Your task to perform on an android device: Go to settings Image 0: 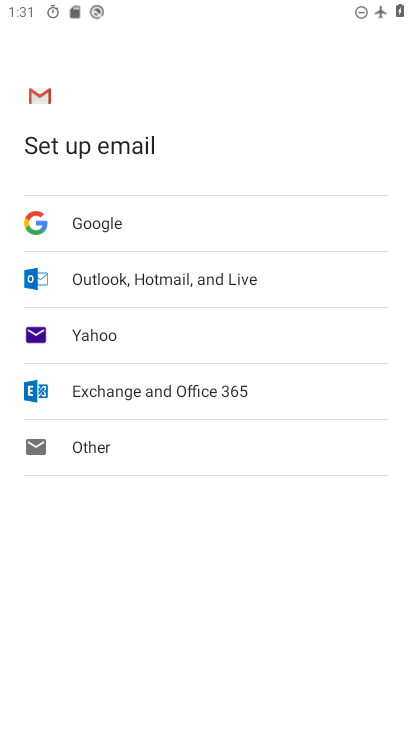
Step 0: press home button
Your task to perform on an android device: Go to settings Image 1: 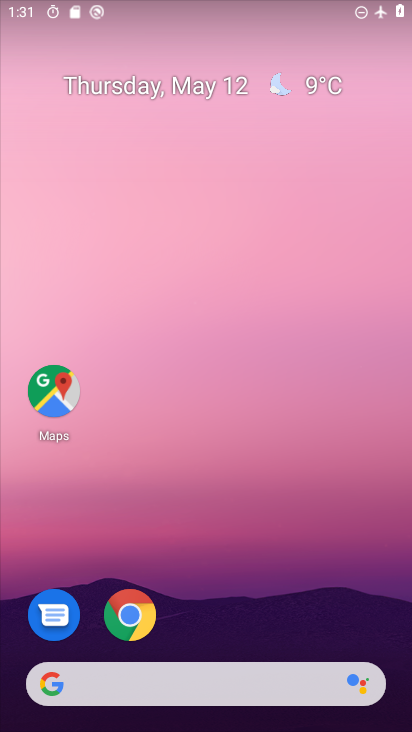
Step 1: drag from (294, 549) to (197, 55)
Your task to perform on an android device: Go to settings Image 2: 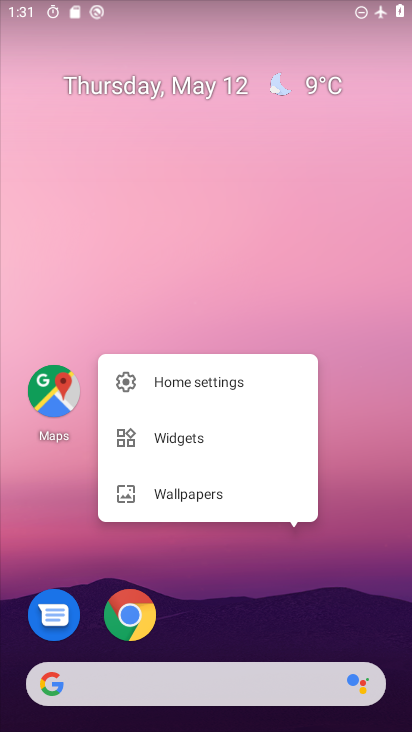
Step 2: drag from (308, 616) to (369, 46)
Your task to perform on an android device: Go to settings Image 3: 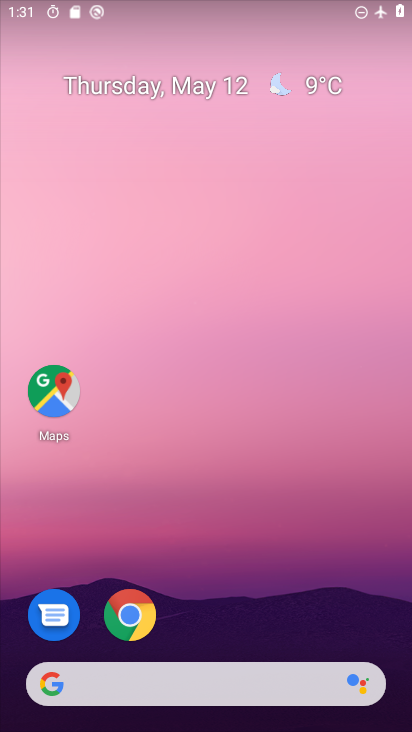
Step 3: drag from (288, 575) to (221, 71)
Your task to perform on an android device: Go to settings Image 4: 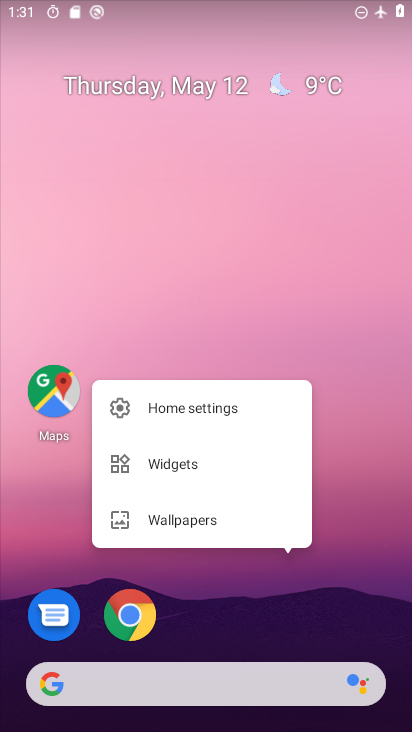
Step 4: click (345, 576)
Your task to perform on an android device: Go to settings Image 5: 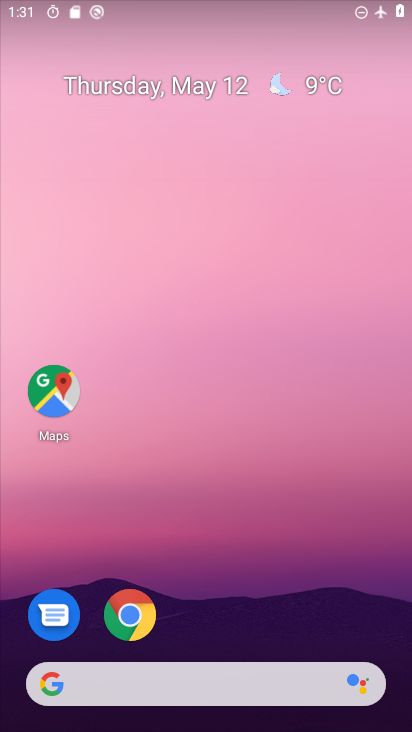
Step 5: click (302, 223)
Your task to perform on an android device: Go to settings Image 6: 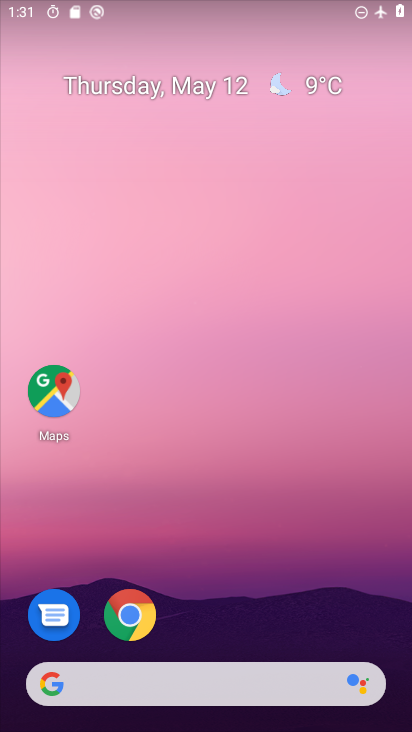
Step 6: drag from (252, 583) to (223, 68)
Your task to perform on an android device: Go to settings Image 7: 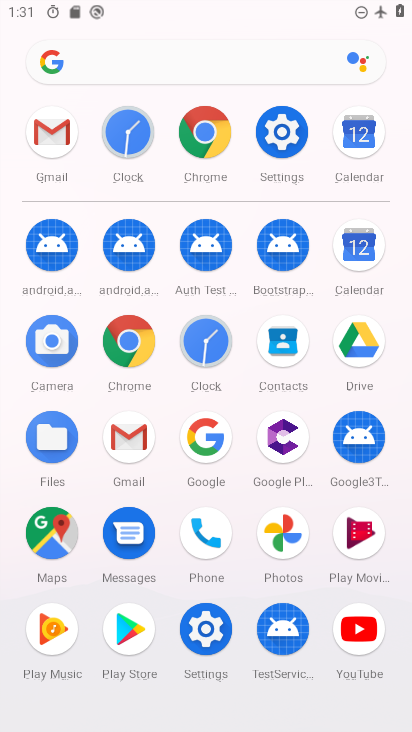
Step 7: click (279, 121)
Your task to perform on an android device: Go to settings Image 8: 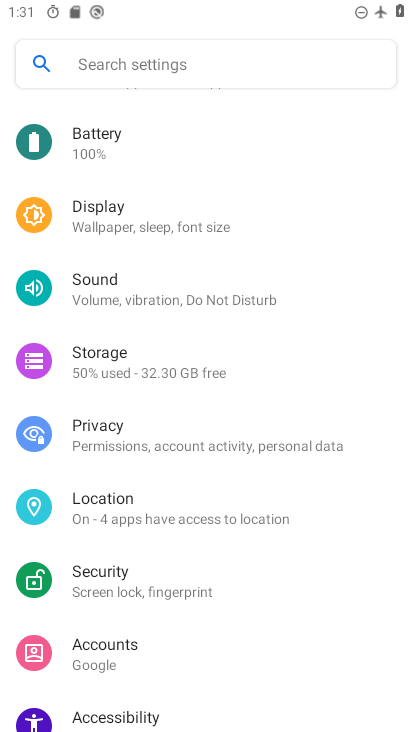
Step 8: task complete